Your task to perform on an android device: open app "Google Duo" (install if not already installed) Image 0: 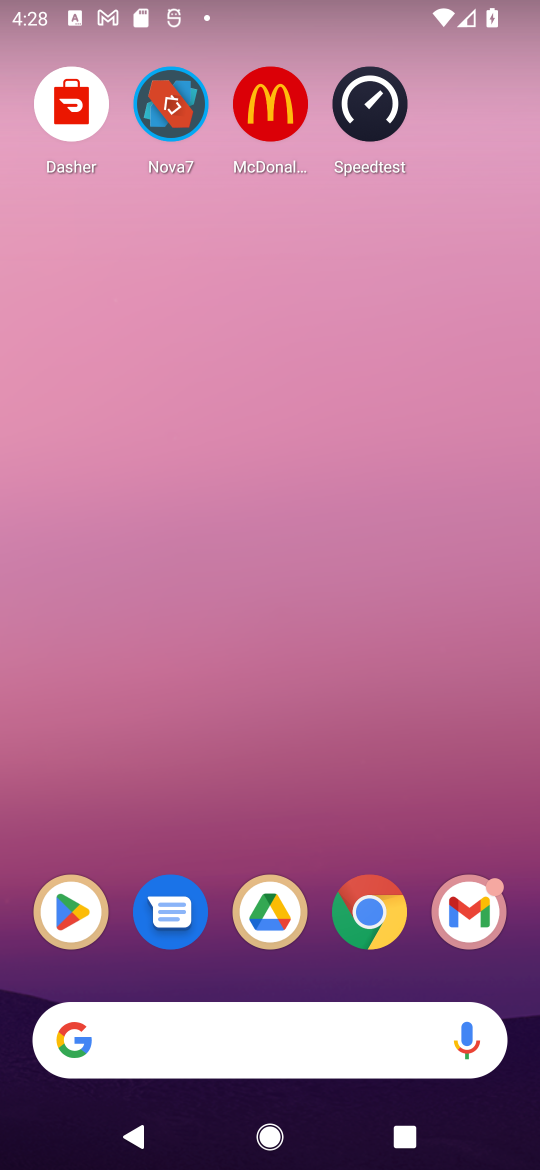
Step 0: click (77, 926)
Your task to perform on an android device: open app "Google Duo" (install if not already installed) Image 1: 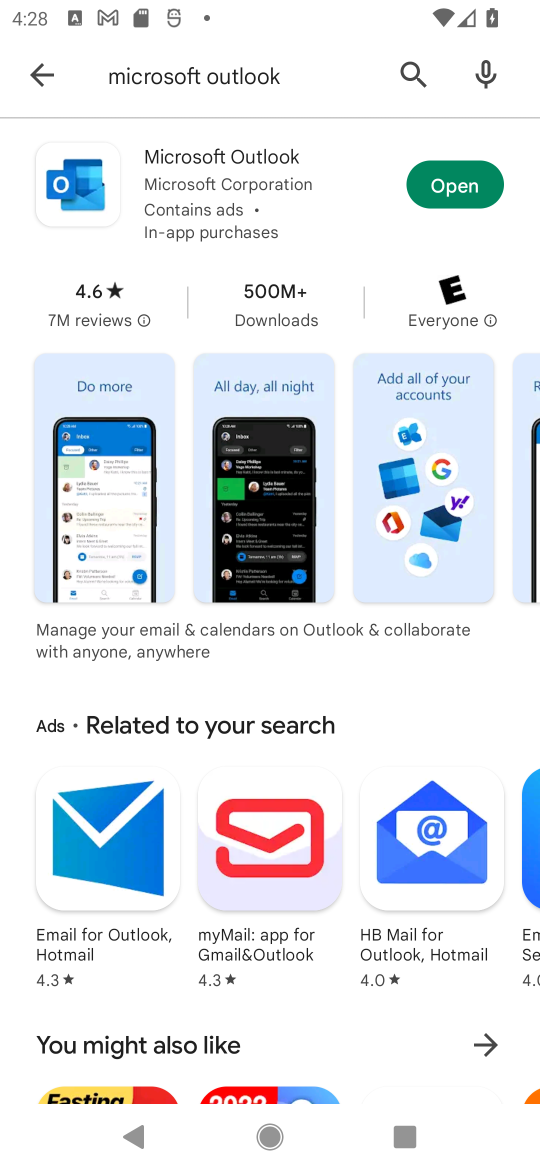
Step 1: click (399, 68)
Your task to perform on an android device: open app "Google Duo" (install if not already installed) Image 2: 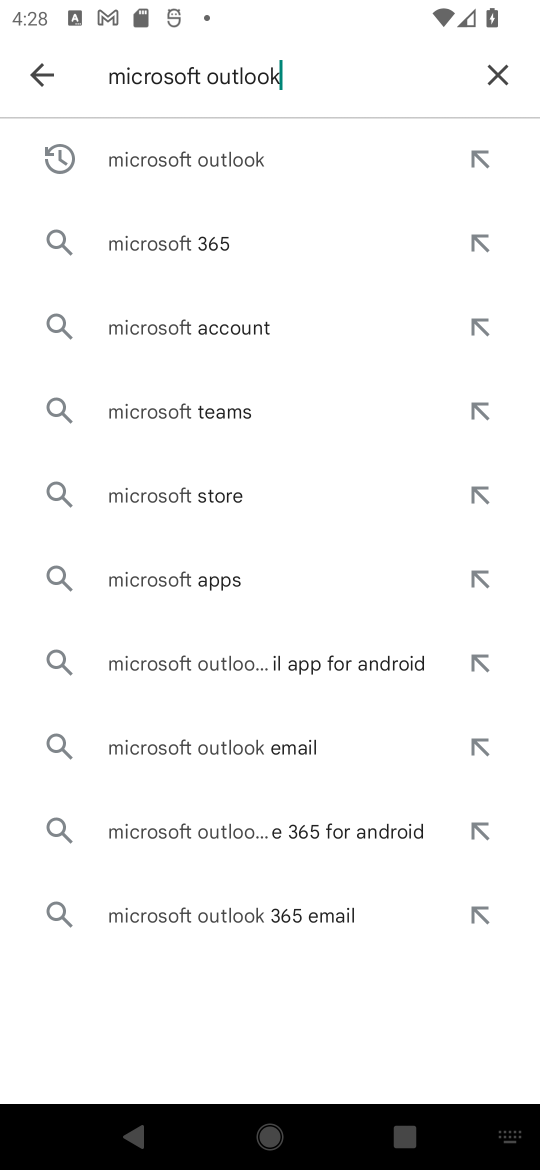
Step 2: click (492, 59)
Your task to perform on an android device: open app "Google Duo" (install if not already installed) Image 3: 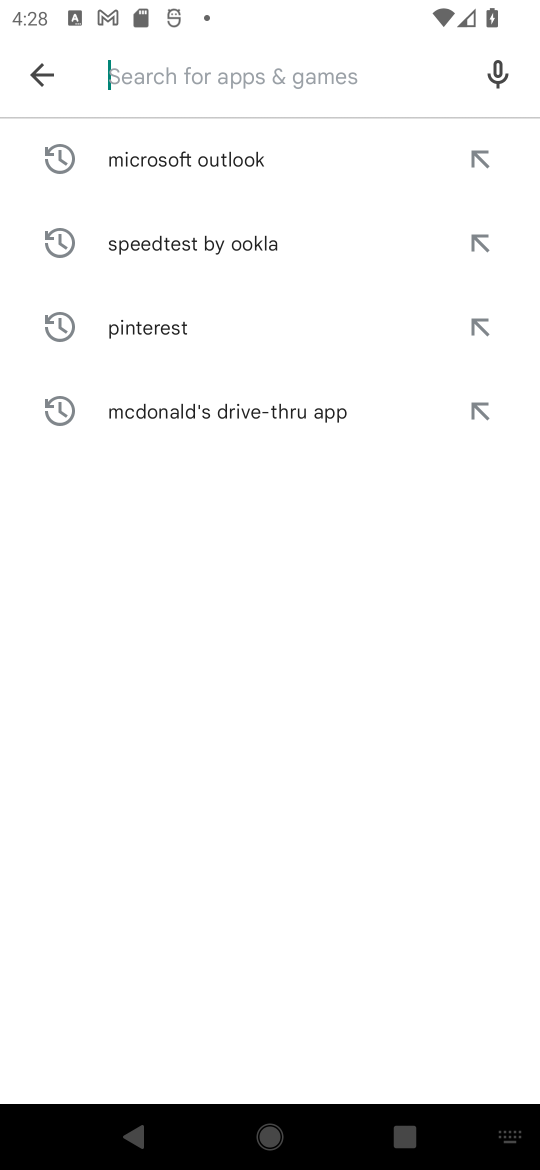
Step 3: type "Google Duo"
Your task to perform on an android device: open app "Google Duo" (install if not already installed) Image 4: 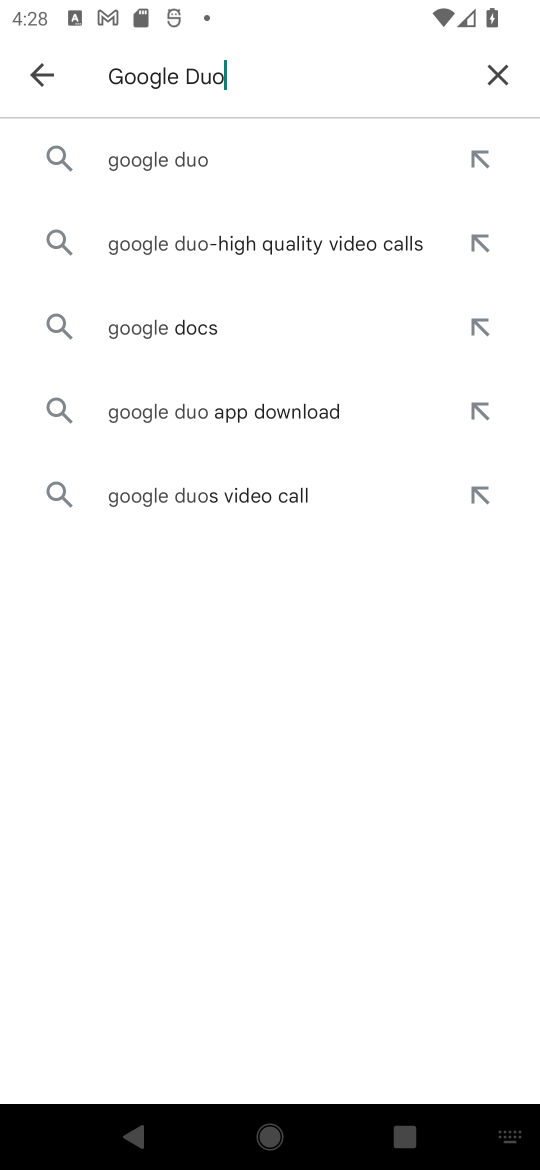
Step 4: click (122, 158)
Your task to perform on an android device: open app "Google Duo" (install if not already installed) Image 5: 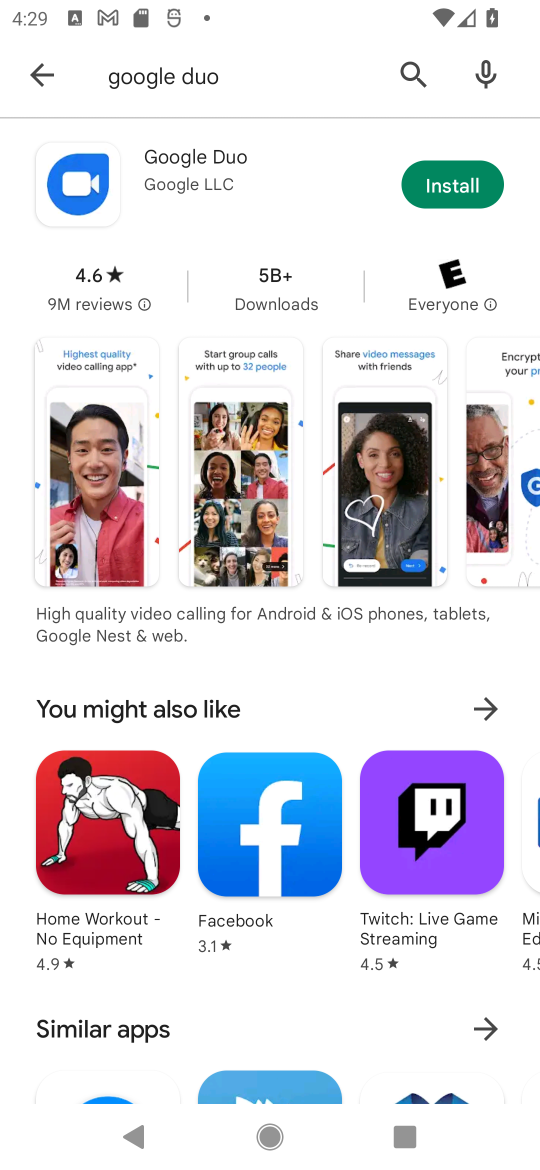
Step 5: click (436, 203)
Your task to perform on an android device: open app "Google Duo" (install if not already installed) Image 6: 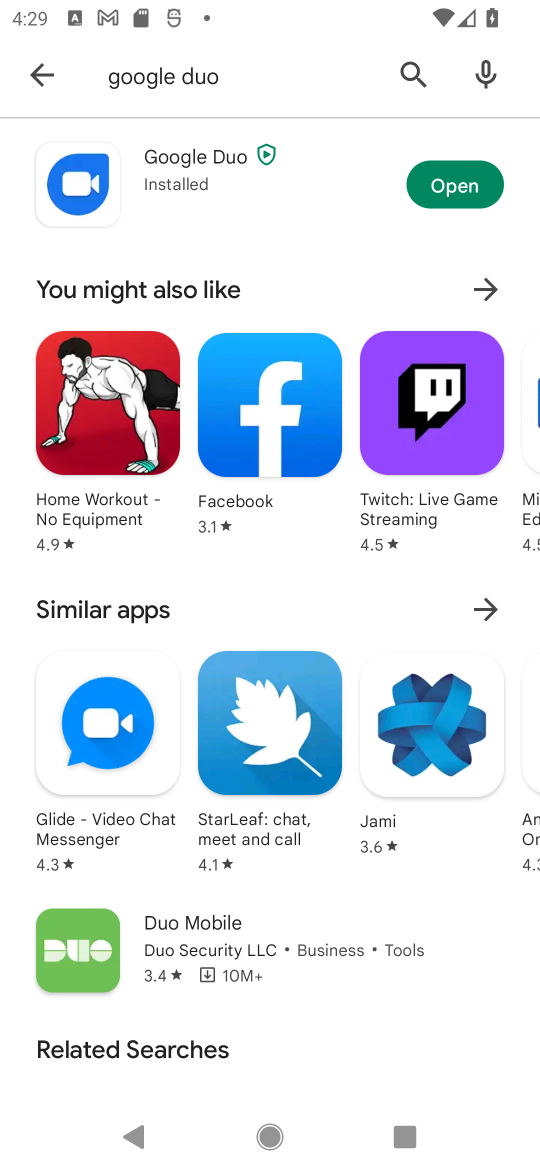
Step 6: click (439, 201)
Your task to perform on an android device: open app "Google Duo" (install if not already installed) Image 7: 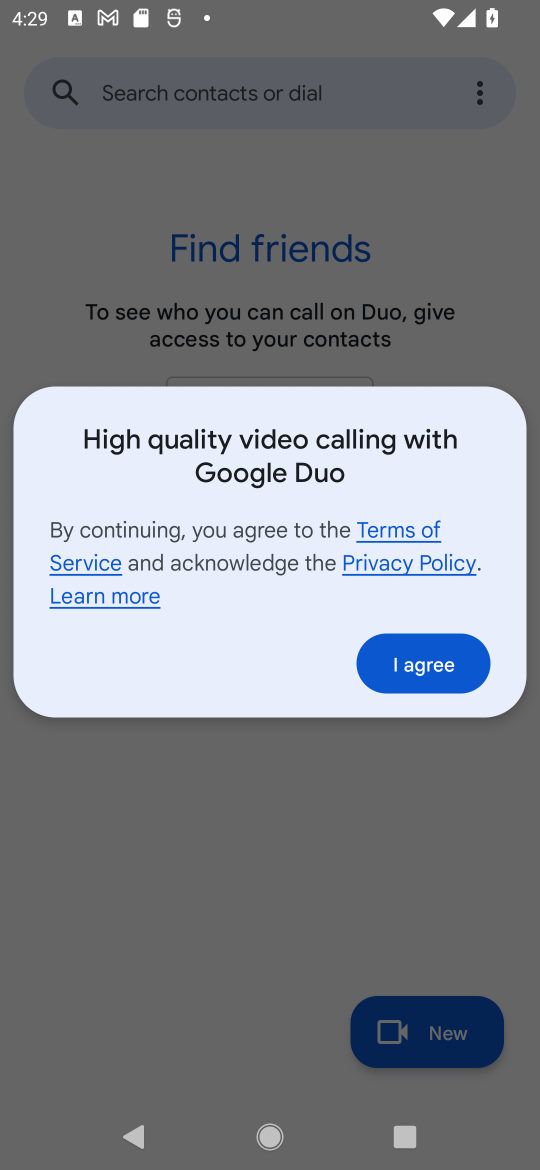
Step 7: task complete